Your task to perform on an android device: Go to settings Image 0: 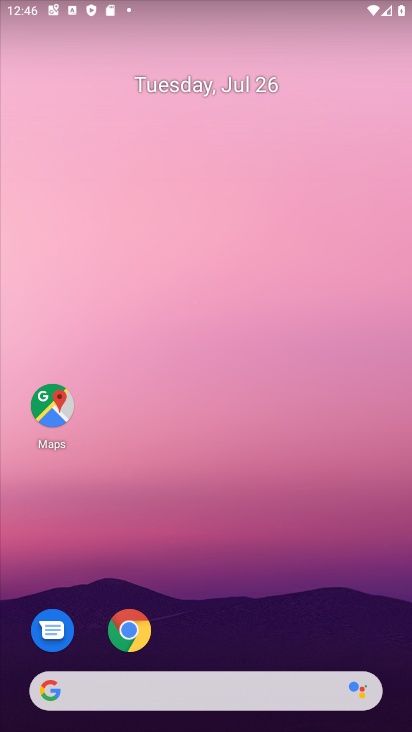
Step 0: drag from (339, 627) to (309, 55)
Your task to perform on an android device: Go to settings Image 1: 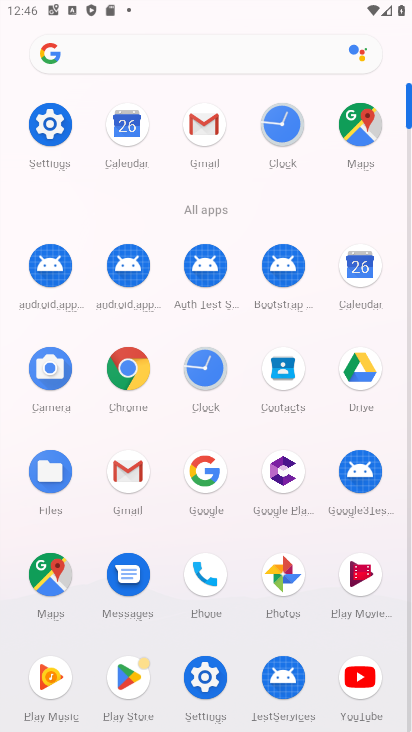
Step 1: click (205, 678)
Your task to perform on an android device: Go to settings Image 2: 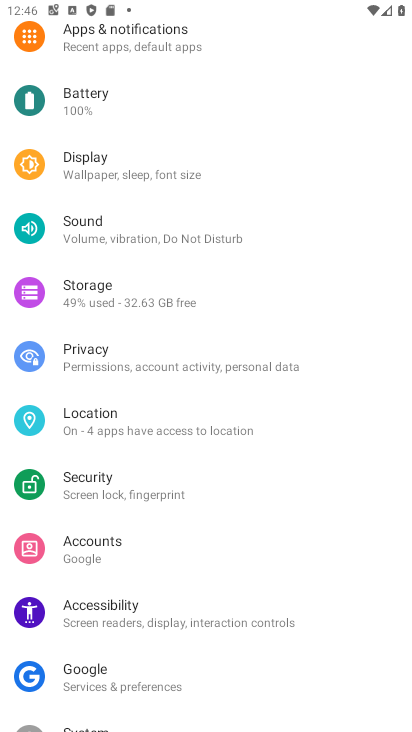
Step 2: task complete